Your task to perform on an android device: delete the emails in spam in the gmail app Image 0: 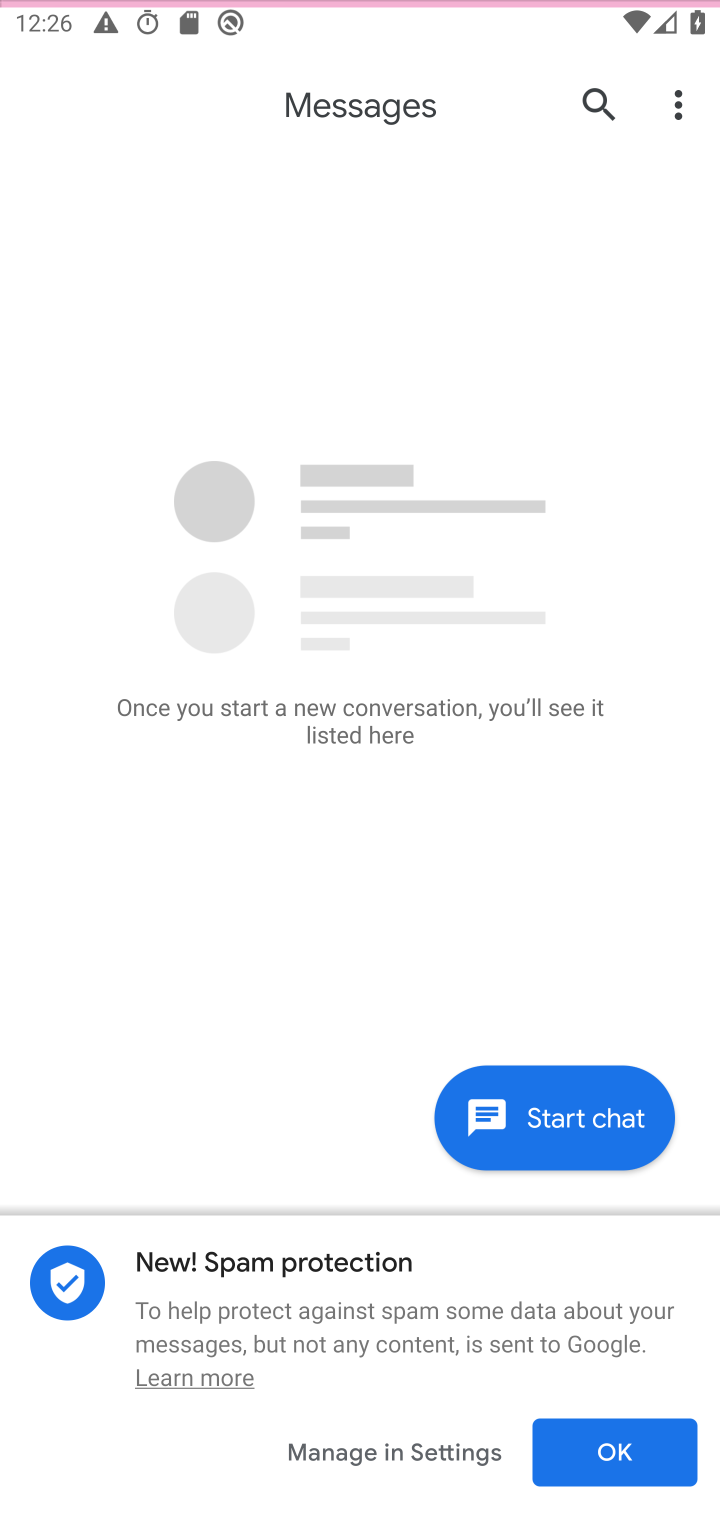
Step 0: click (700, 670)
Your task to perform on an android device: delete the emails in spam in the gmail app Image 1: 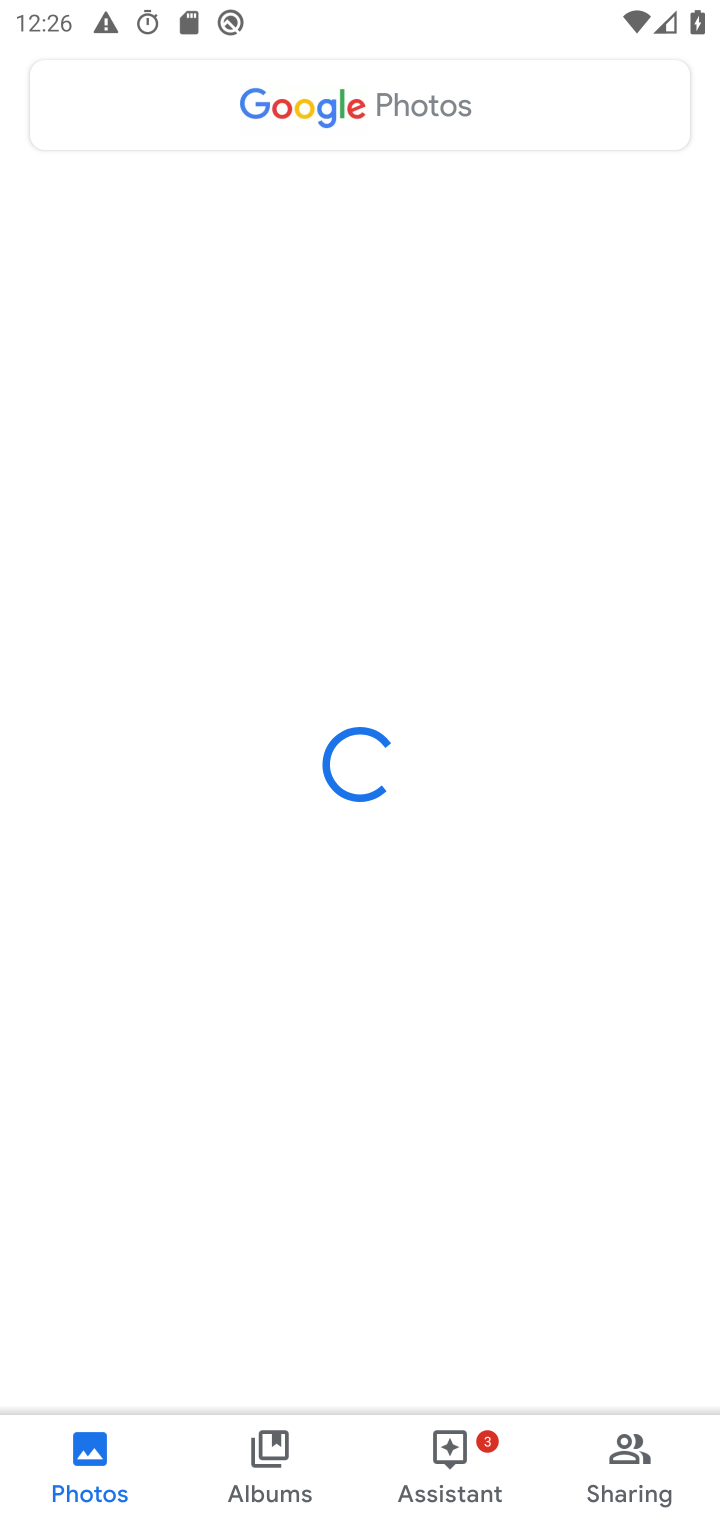
Step 1: press home button
Your task to perform on an android device: delete the emails in spam in the gmail app Image 2: 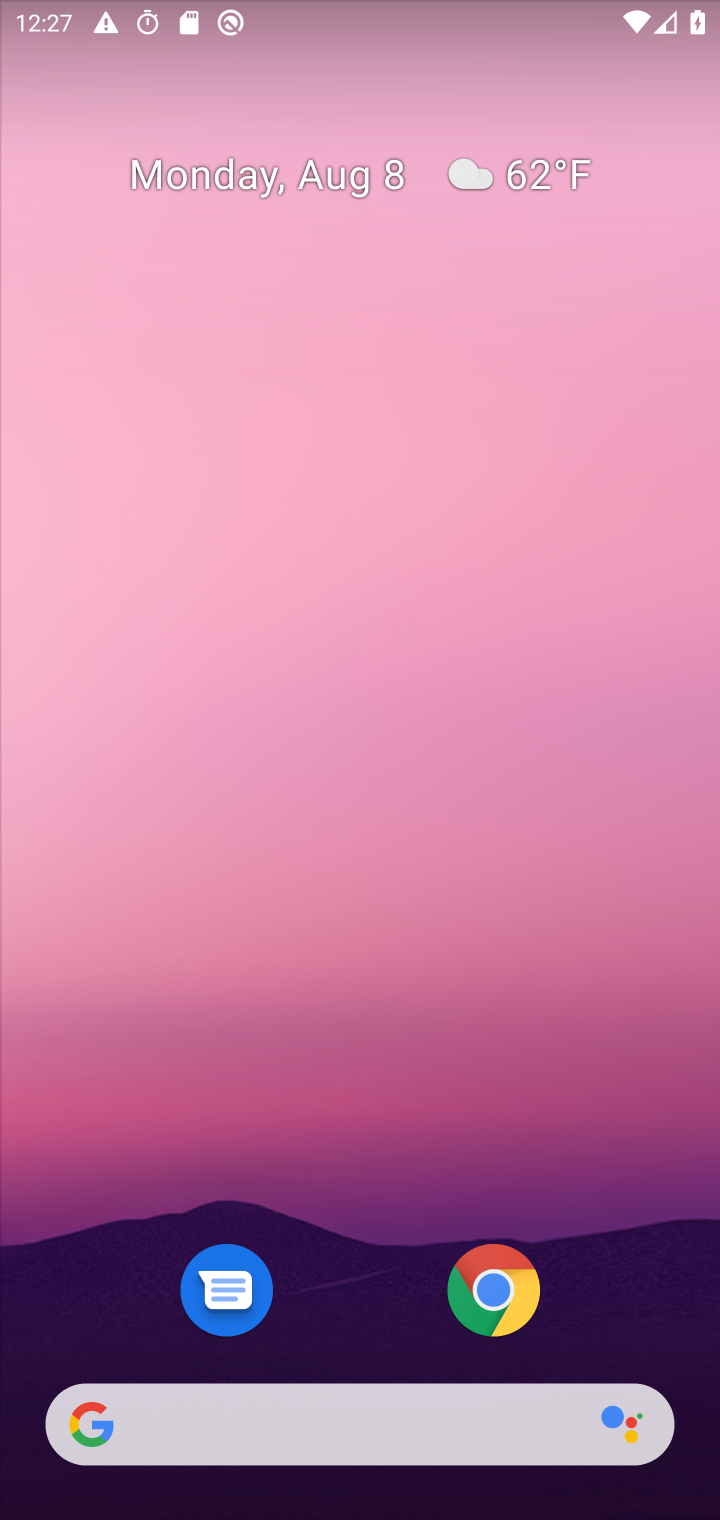
Step 2: drag from (372, 1267) to (538, 328)
Your task to perform on an android device: delete the emails in spam in the gmail app Image 3: 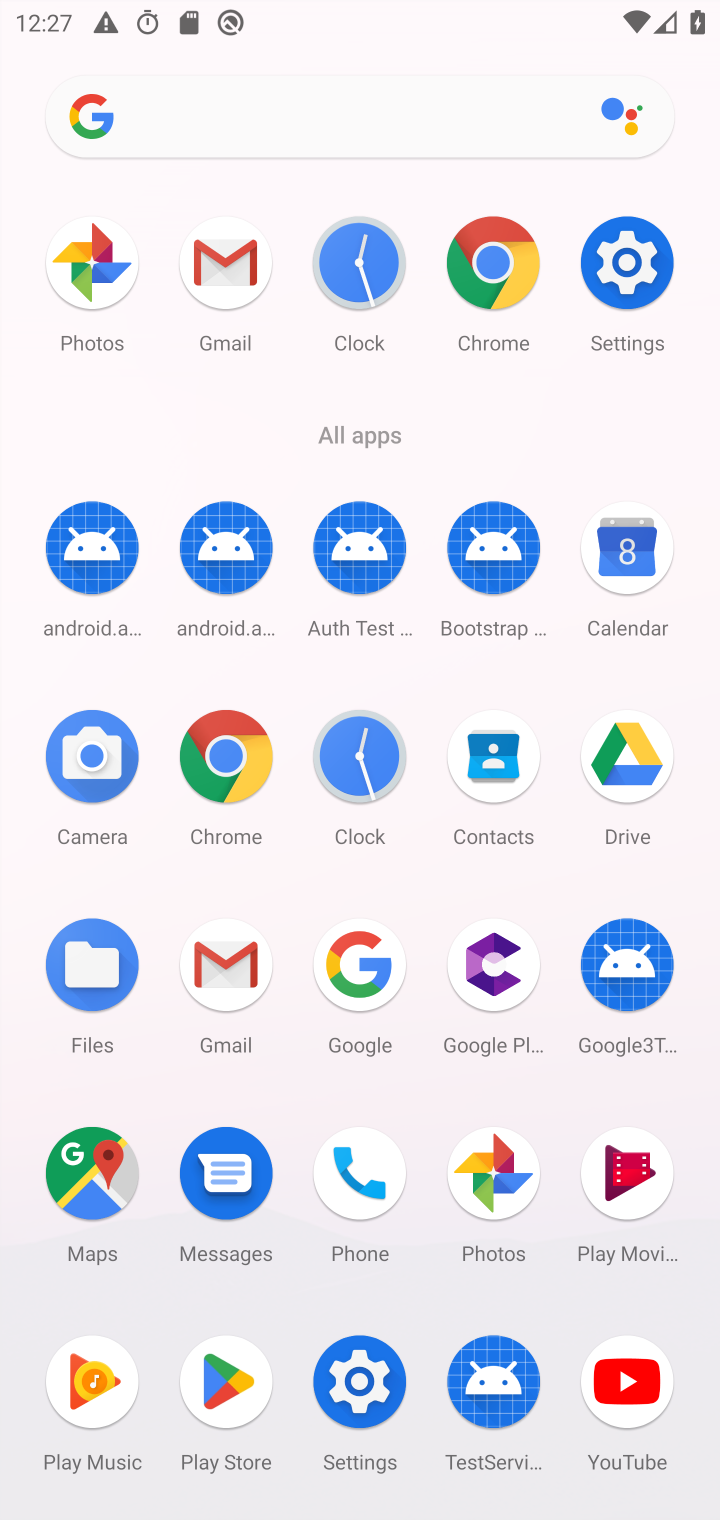
Step 3: click (228, 983)
Your task to perform on an android device: delete the emails in spam in the gmail app Image 4: 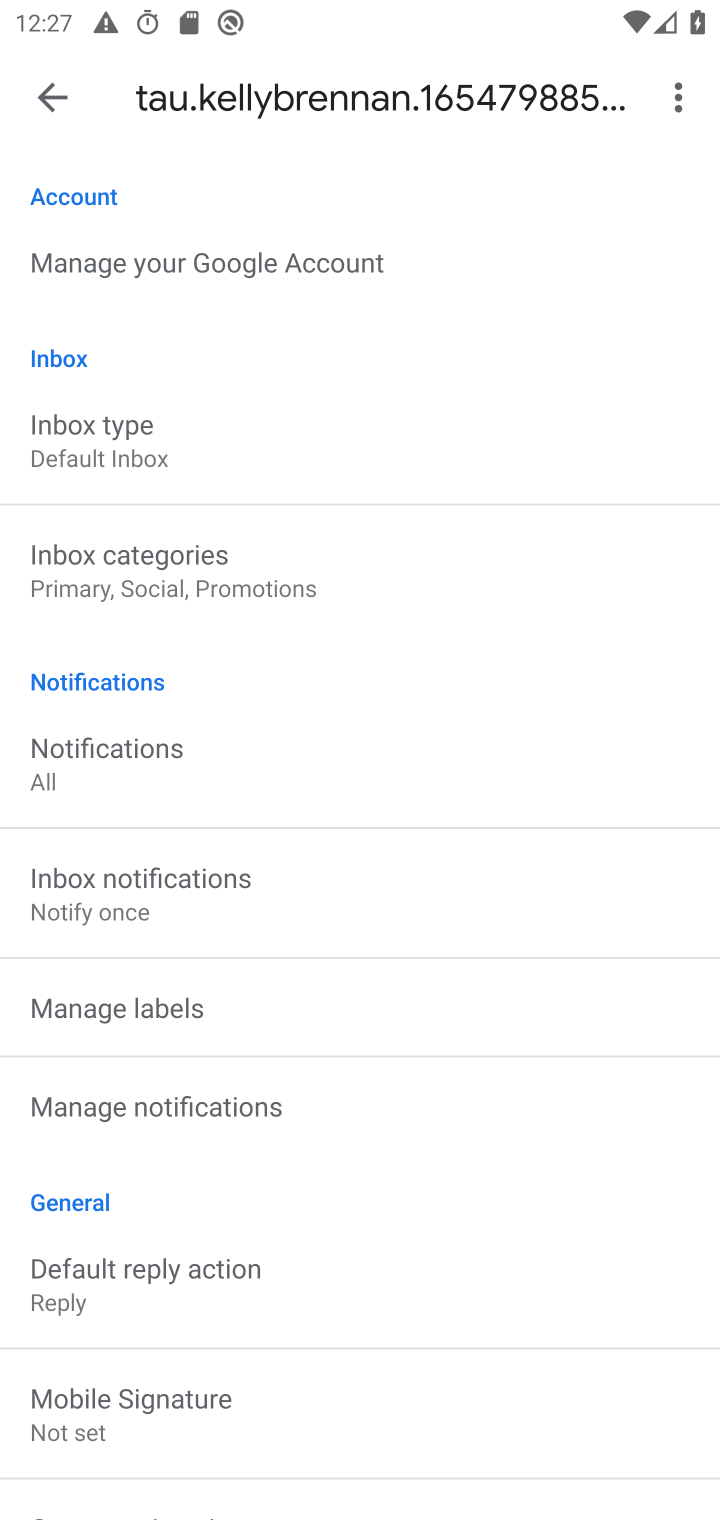
Step 4: click (49, 61)
Your task to perform on an android device: delete the emails in spam in the gmail app Image 5: 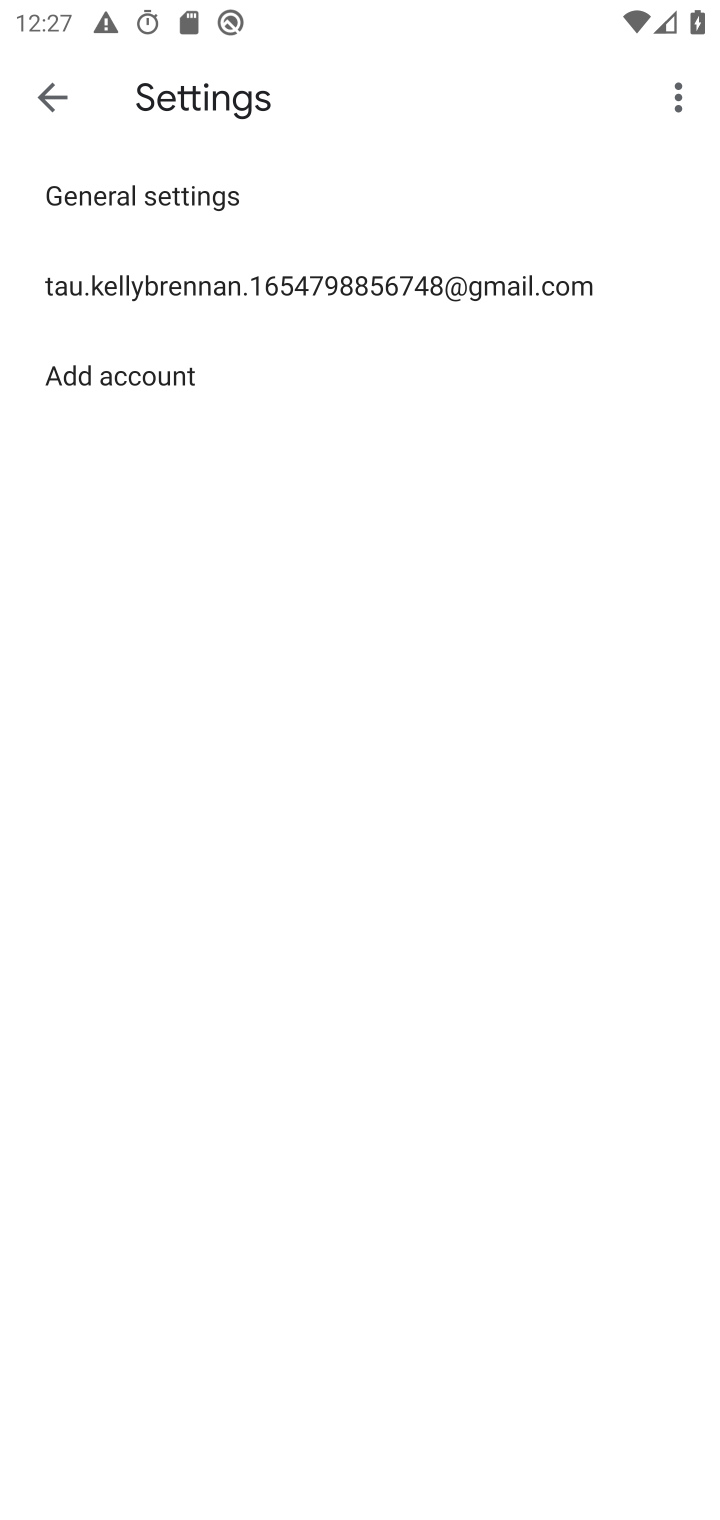
Step 5: click (54, 89)
Your task to perform on an android device: delete the emails in spam in the gmail app Image 6: 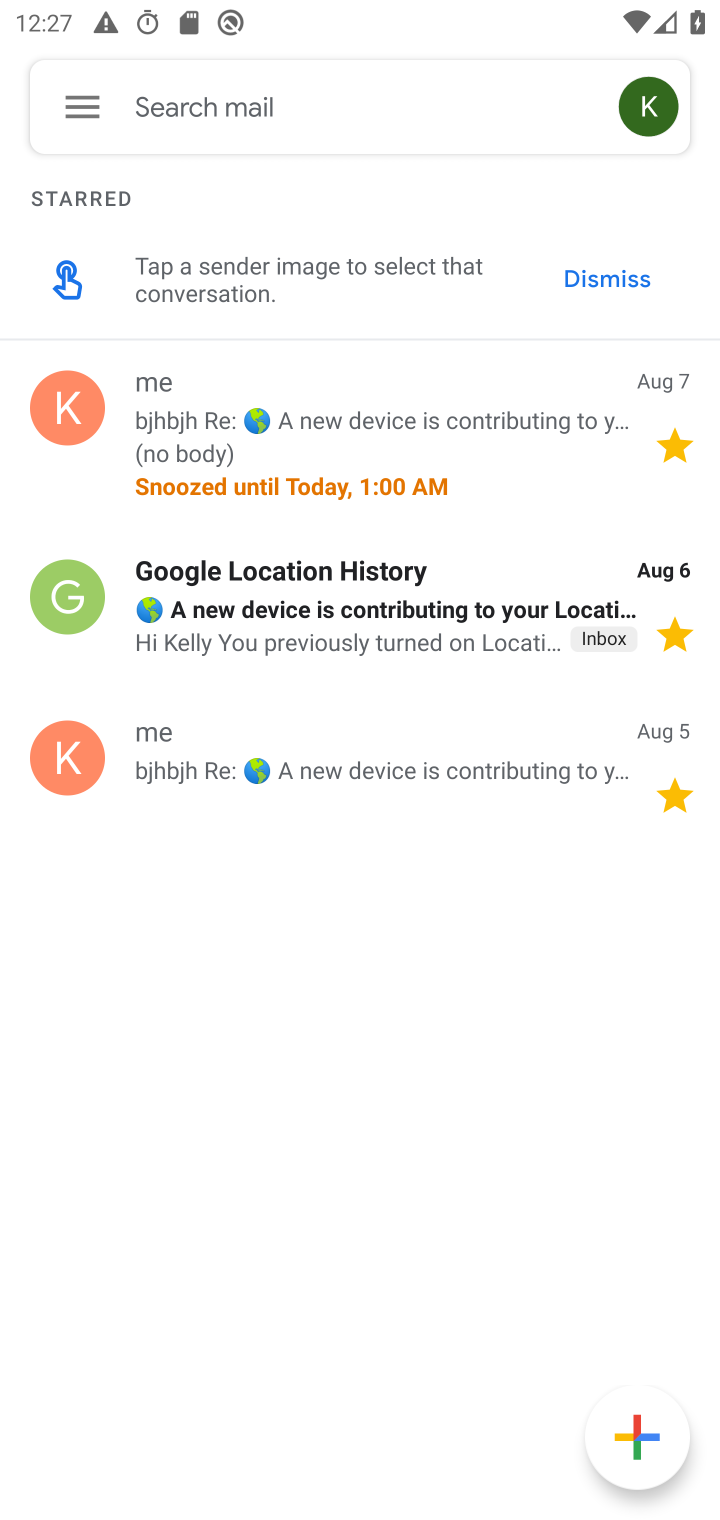
Step 6: click (87, 620)
Your task to perform on an android device: delete the emails in spam in the gmail app Image 7: 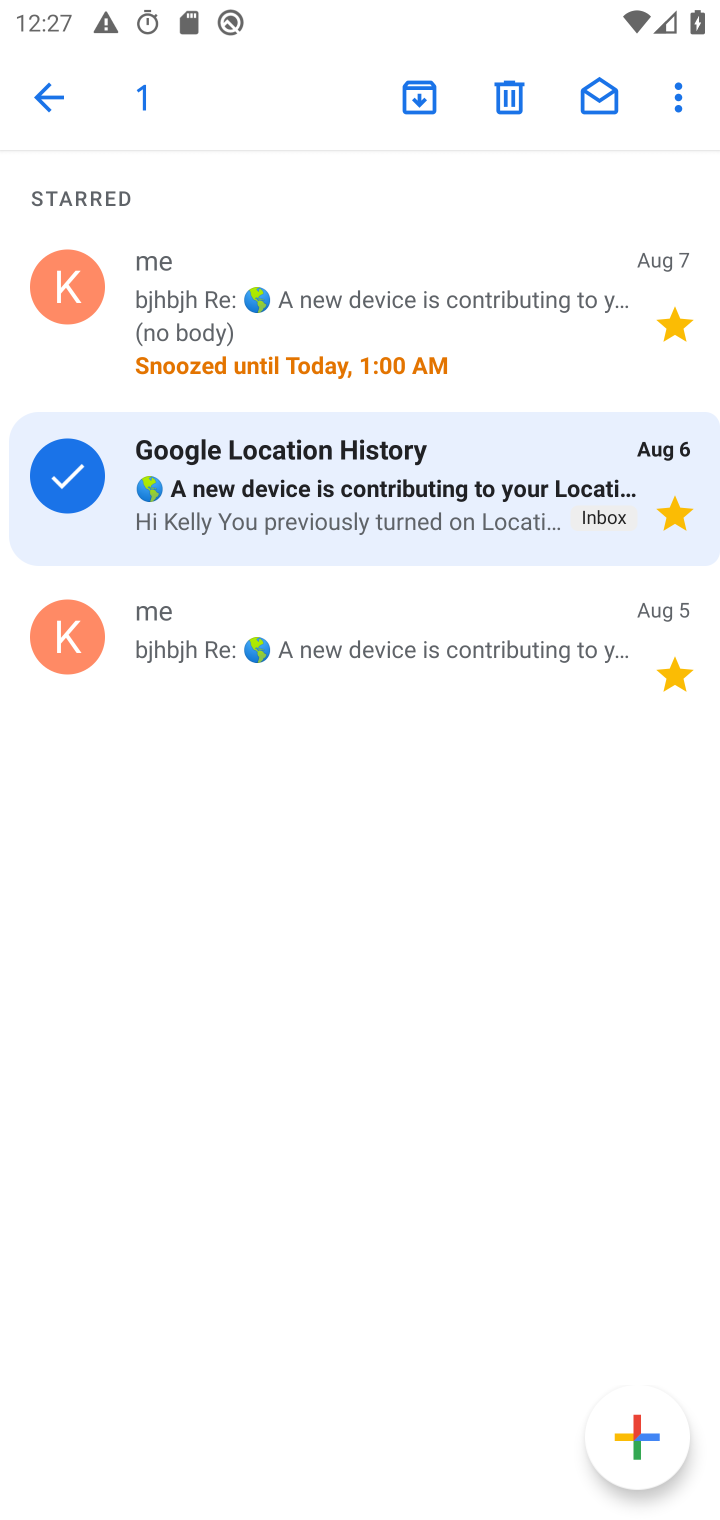
Step 7: click (72, 453)
Your task to perform on an android device: delete the emails in spam in the gmail app Image 8: 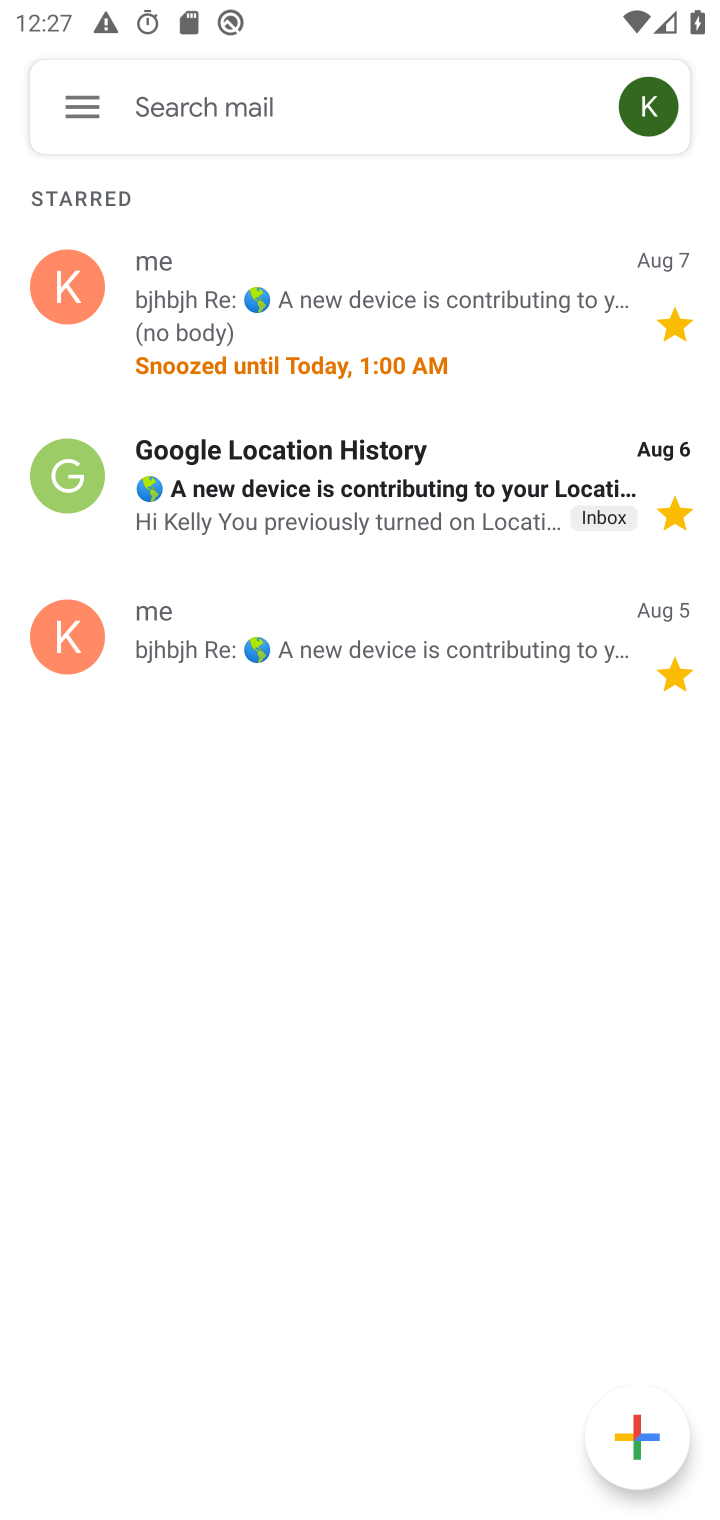
Step 8: click (47, 101)
Your task to perform on an android device: delete the emails in spam in the gmail app Image 9: 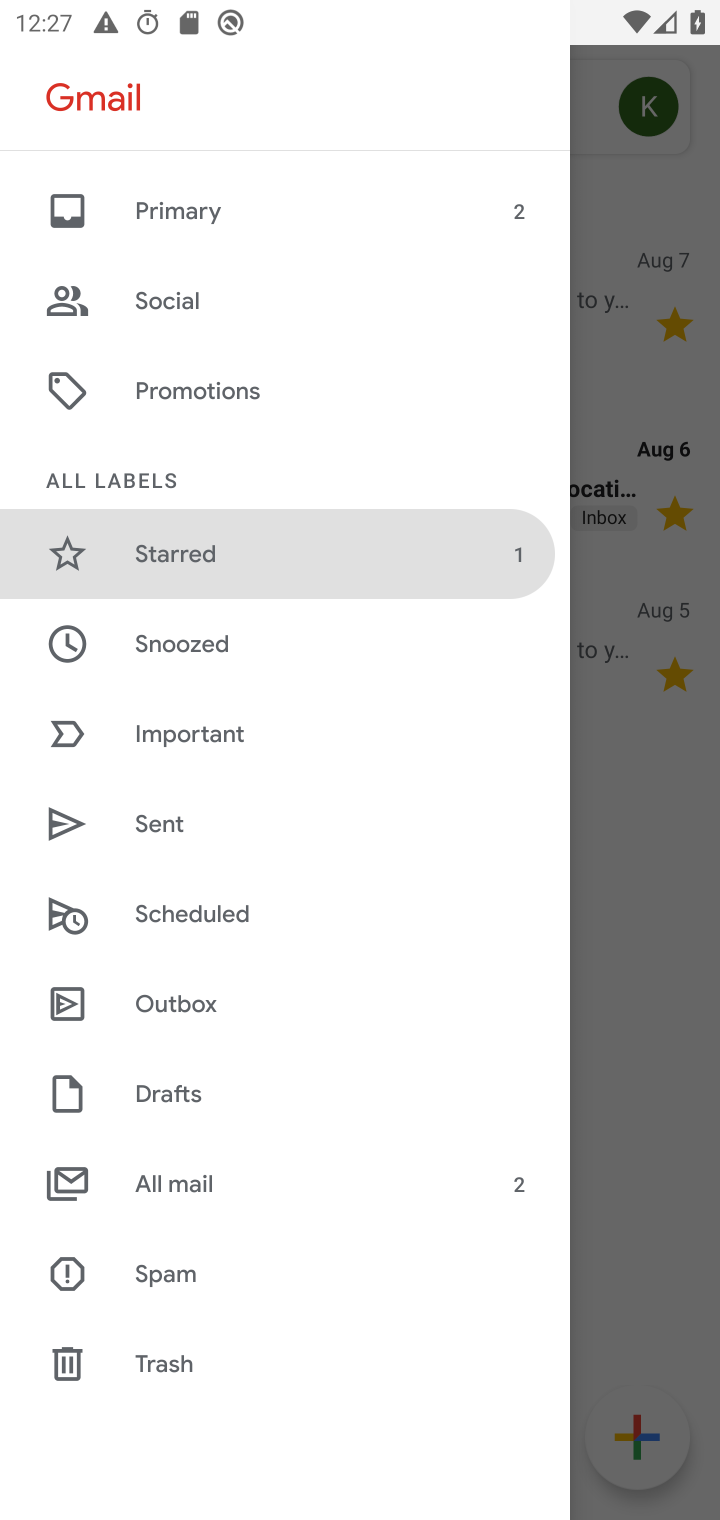
Step 9: click (195, 215)
Your task to perform on an android device: delete the emails in spam in the gmail app Image 10: 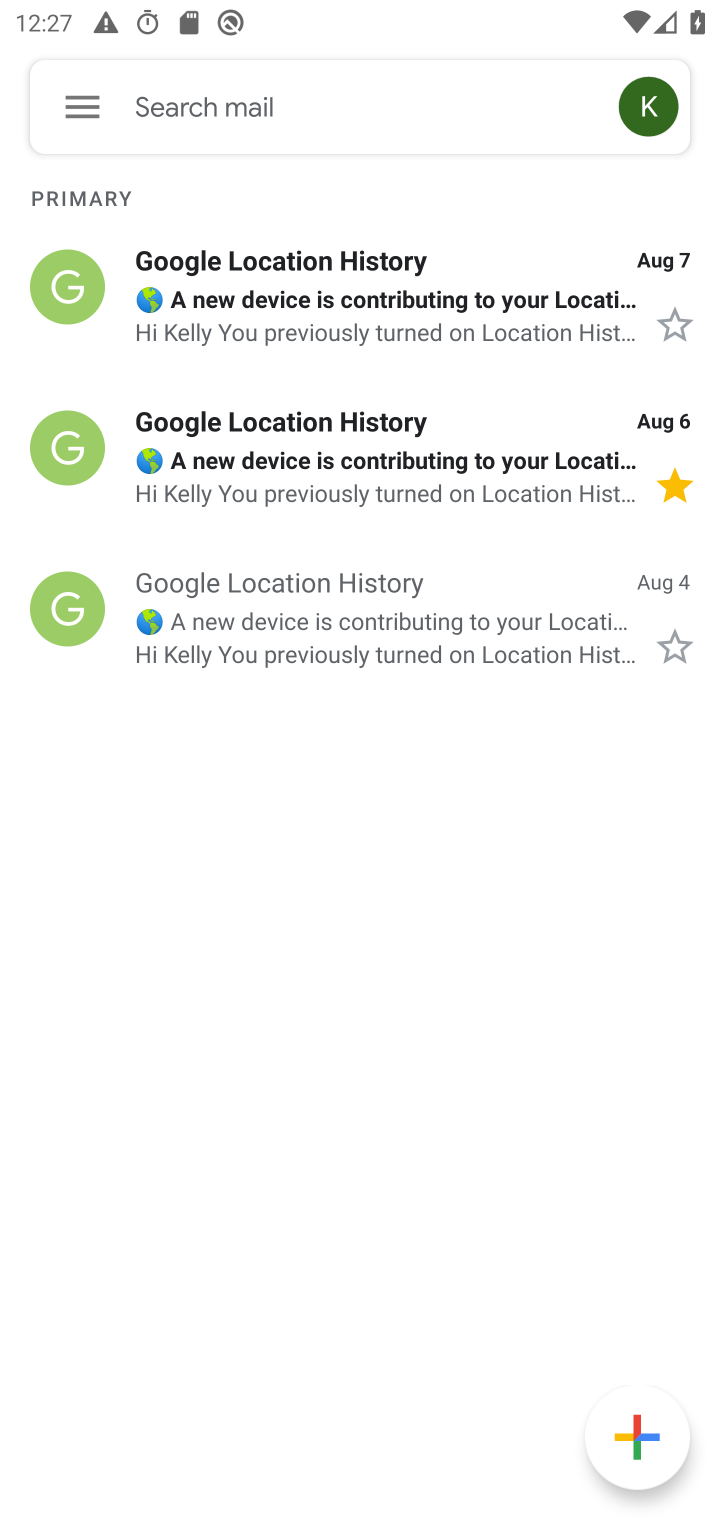
Step 10: click (74, 110)
Your task to perform on an android device: delete the emails in spam in the gmail app Image 11: 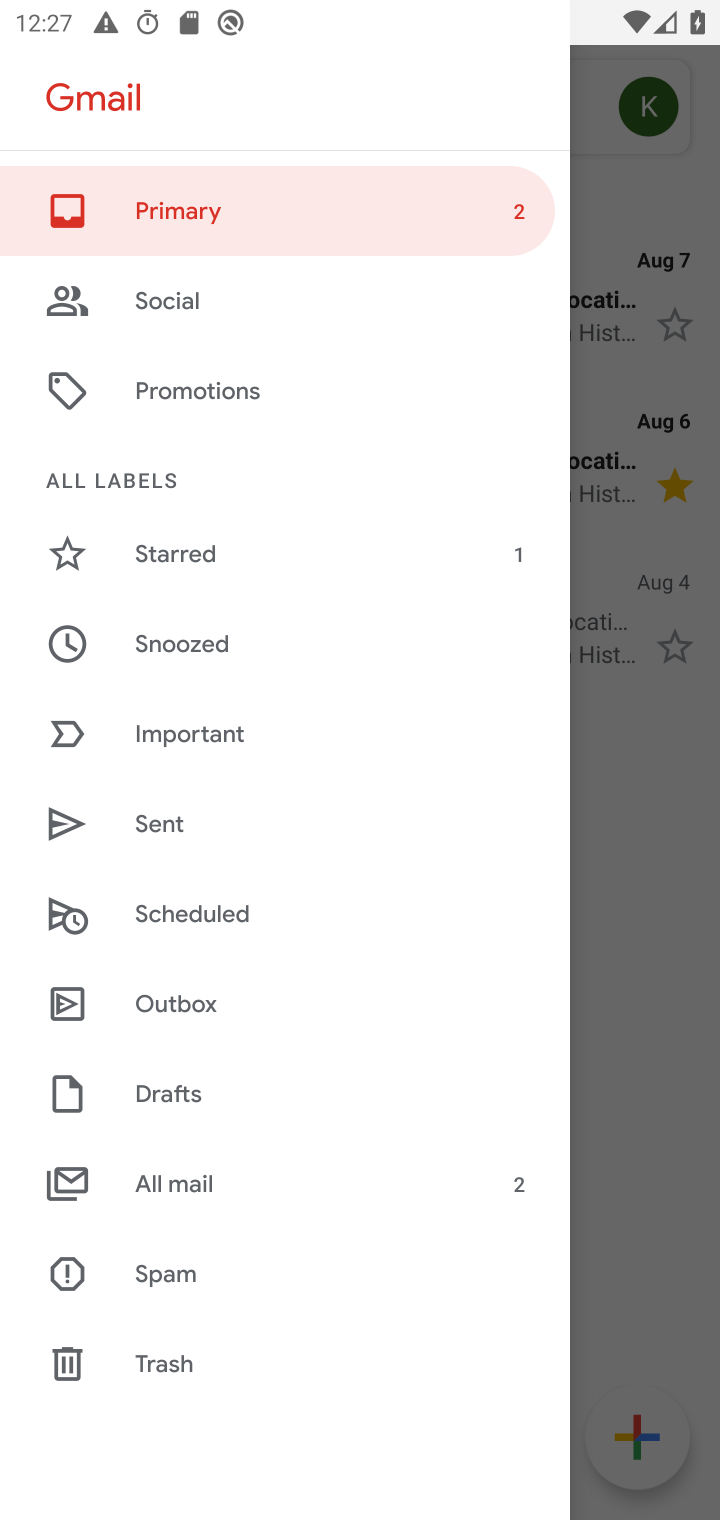
Step 11: click (221, 1295)
Your task to perform on an android device: delete the emails in spam in the gmail app Image 12: 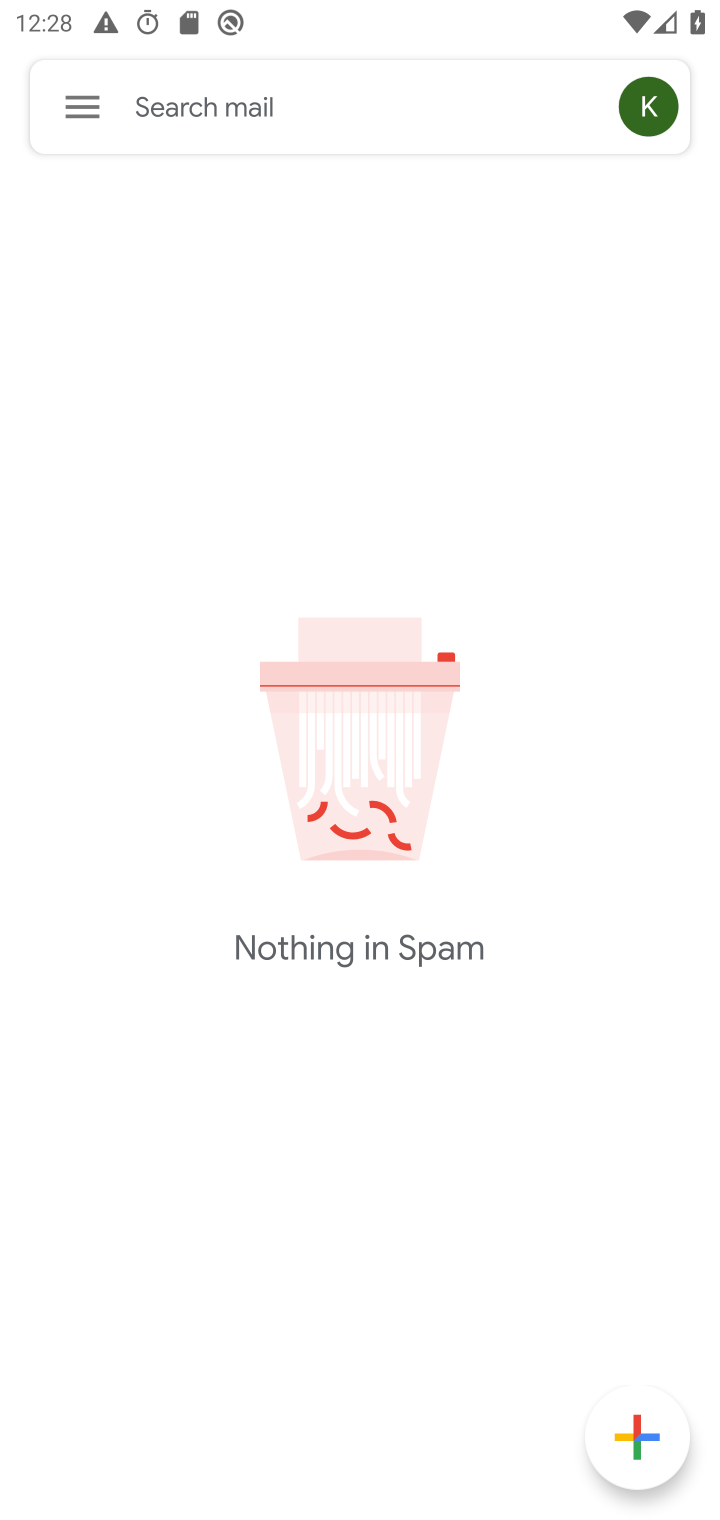
Step 12: task complete